Your task to perform on an android device: Go to Google maps Image 0: 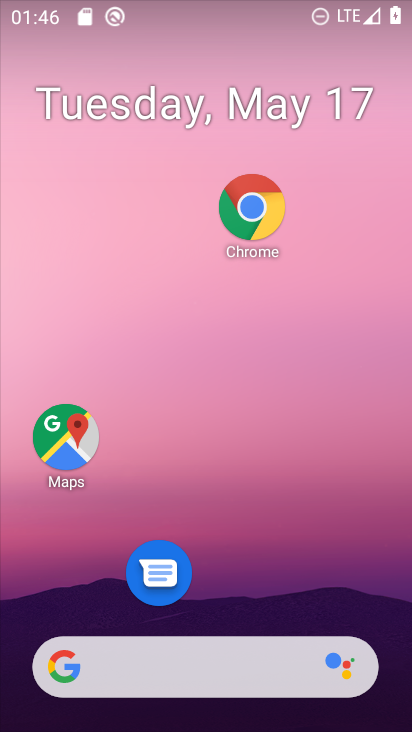
Step 0: drag from (280, 670) to (321, 41)
Your task to perform on an android device: Go to Google maps Image 1: 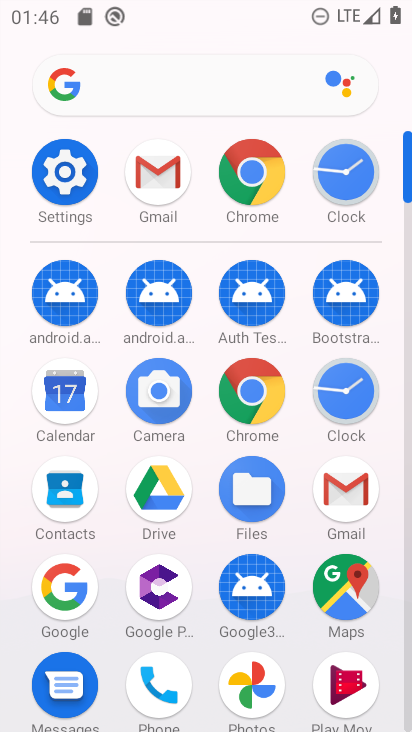
Step 1: click (354, 584)
Your task to perform on an android device: Go to Google maps Image 2: 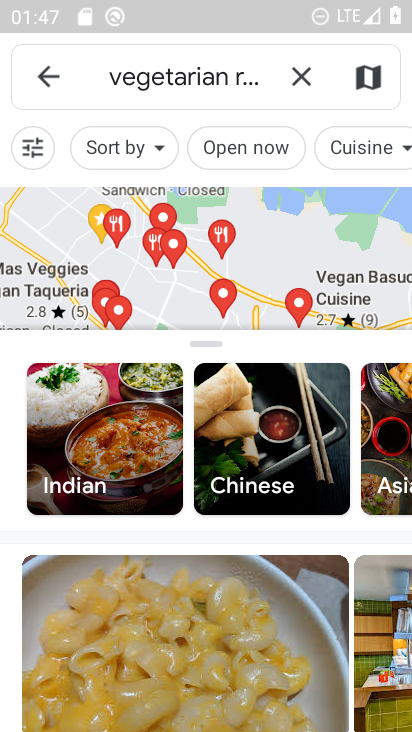
Step 2: task complete